Your task to perform on an android device: Show me the alarms in the clock app Image 0: 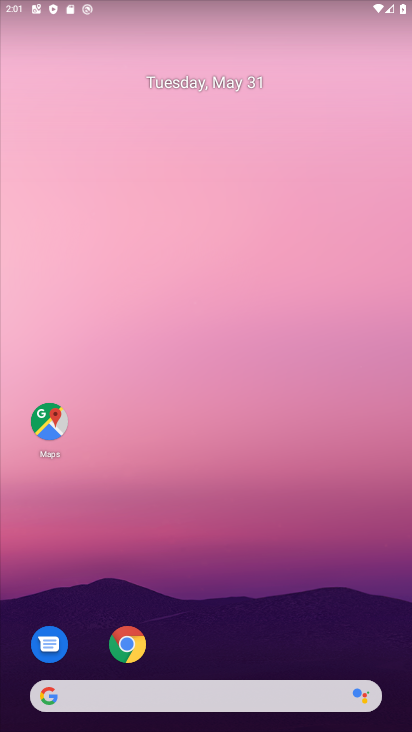
Step 0: drag from (399, 711) to (315, 186)
Your task to perform on an android device: Show me the alarms in the clock app Image 1: 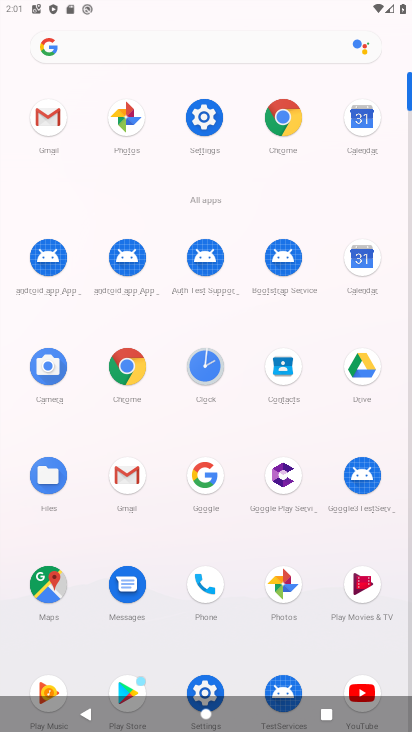
Step 1: click (208, 363)
Your task to perform on an android device: Show me the alarms in the clock app Image 2: 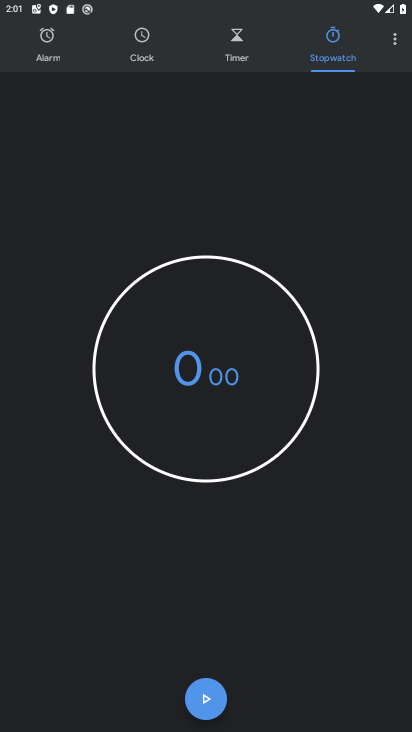
Step 2: click (57, 46)
Your task to perform on an android device: Show me the alarms in the clock app Image 3: 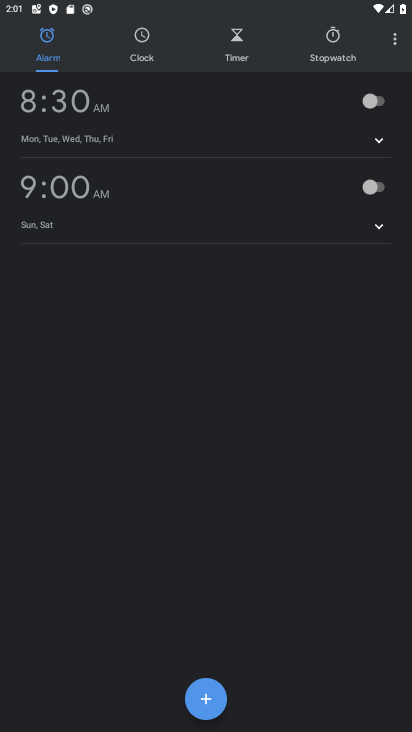
Step 3: click (386, 98)
Your task to perform on an android device: Show me the alarms in the clock app Image 4: 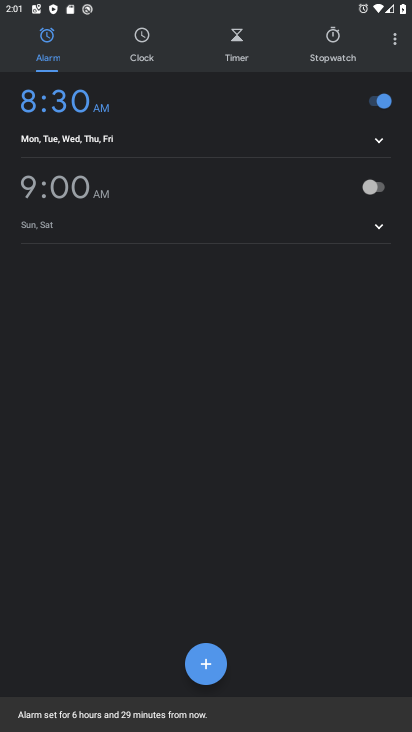
Step 4: click (374, 103)
Your task to perform on an android device: Show me the alarms in the clock app Image 5: 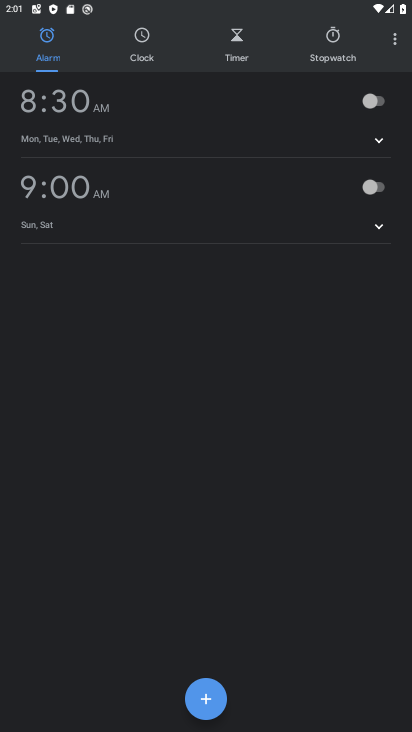
Step 5: task complete